Your task to perform on an android device: turn off wifi Image 0: 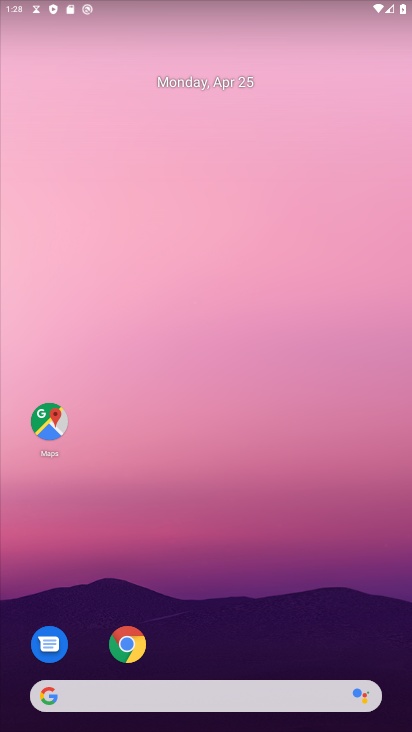
Step 0: drag from (352, 649) to (369, 27)
Your task to perform on an android device: turn off wifi Image 1: 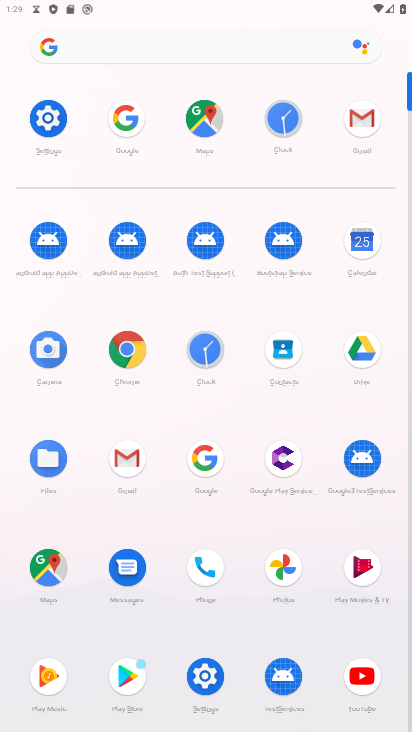
Step 1: click (46, 117)
Your task to perform on an android device: turn off wifi Image 2: 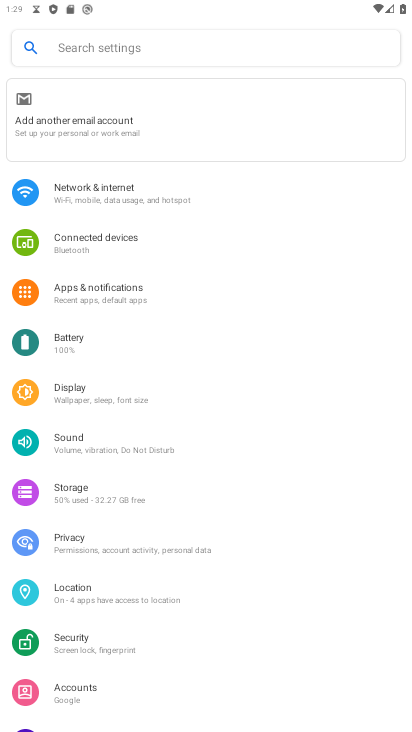
Step 2: click (111, 201)
Your task to perform on an android device: turn off wifi Image 3: 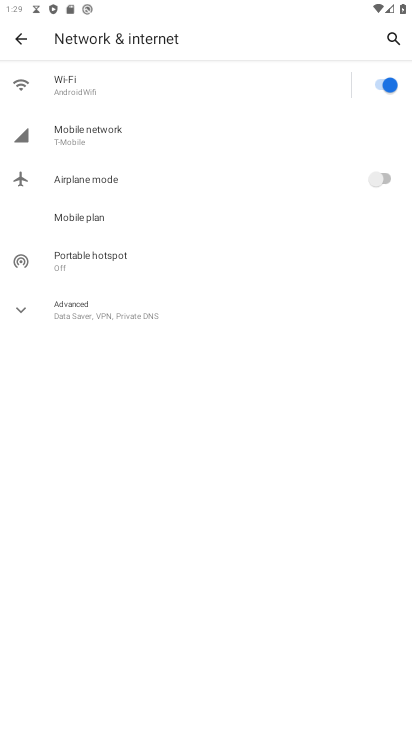
Step 3: click (393, 86)
Your task to perform on an android device: turn off wifi Image 4: 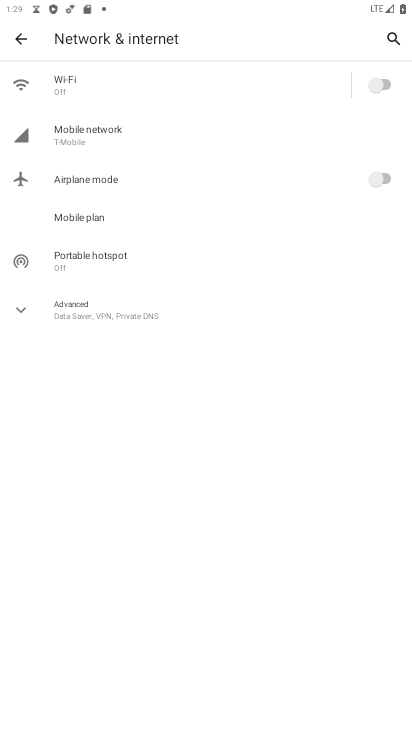
Step 4: task complete